Your task to perform on an android device: Check the news Image 0: 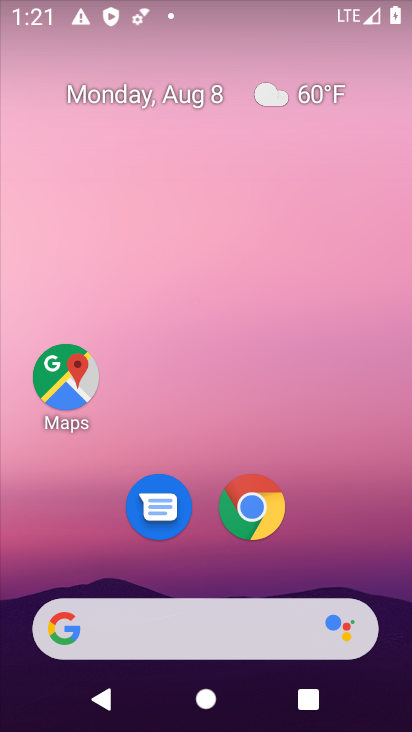
Step 0: drag from (16, 297) to (367, 308)
Your task to perform on an android device: Check the news Image 1: 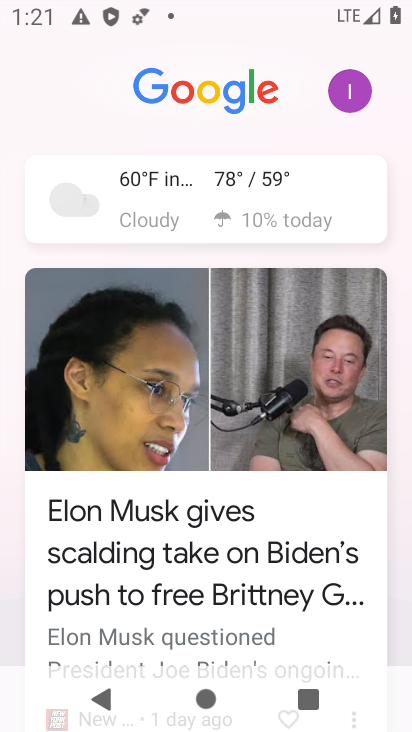
Step 1: task complete